Your task to perform on an android device: turn on sleep mode Image 0: 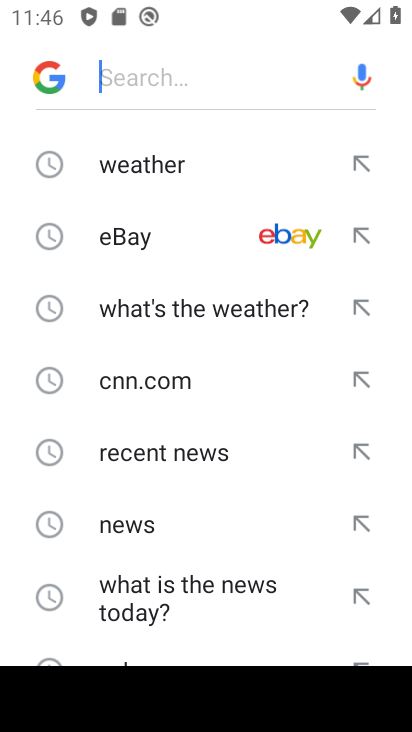
Step 0: press home button
Your task to perform on an android device: turn on sleep mode Image 1: 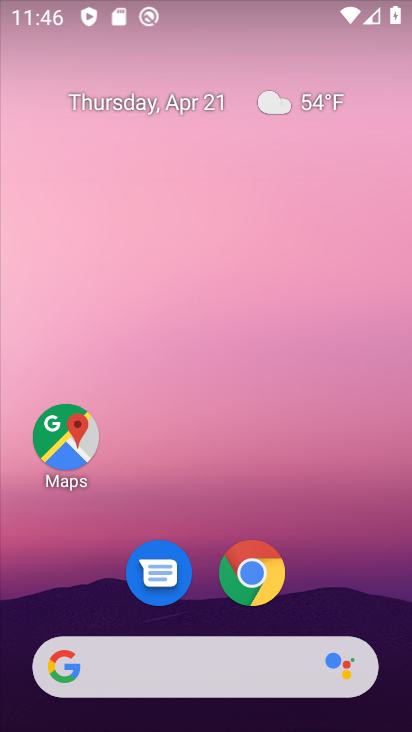
Step 1: drag from (360, 370) to (344, 191)
Your task to perform on an android device: turn on sleep mode Image 2: 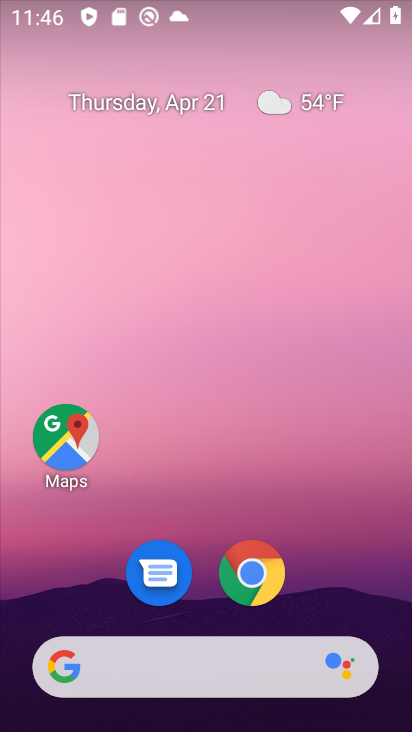
Step 2: drag from (351, 564) to (312, 158)
Your task to perform on an android device: turn on sleep mode Image 3: 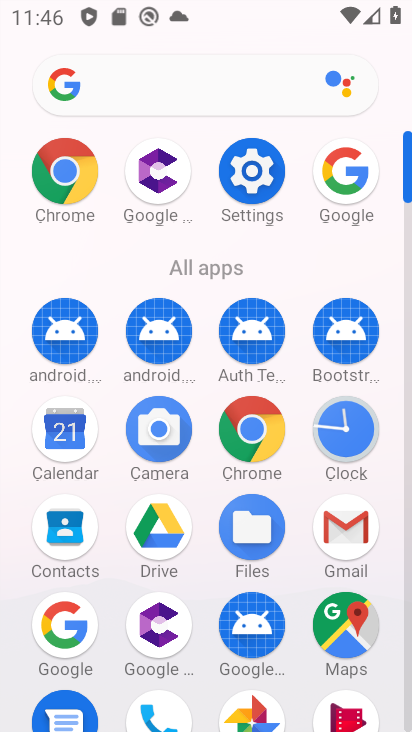
Step 3: click (273, 167)
Your task to perform on an android device: turn on sleep mode Image 4: 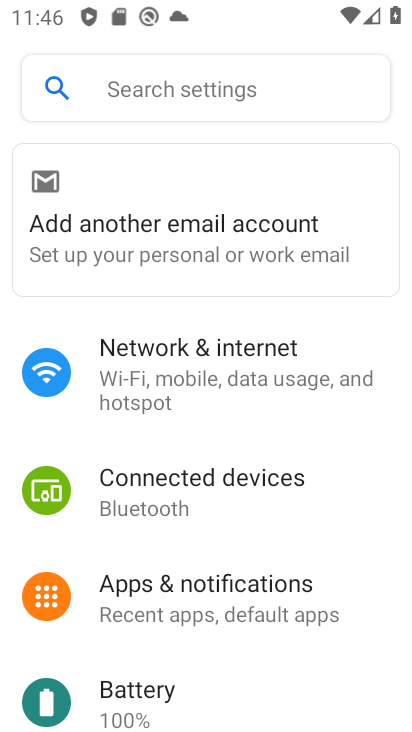
Step 4: click (233, 113)
Your task to perform on an android device: turn on sleep mode Image 5: 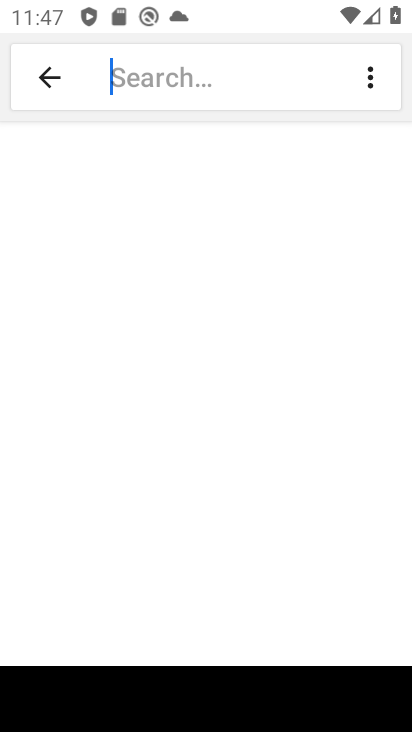
Step 5: type "sleep mode"
Your task to perform on an android device: turn on sleep mode Image 6: 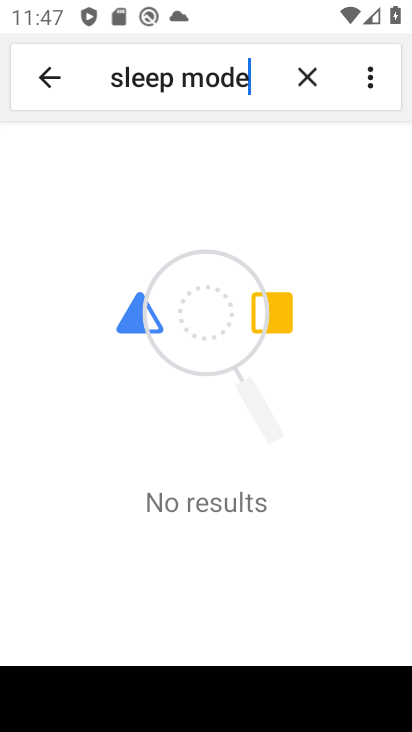
Step 6: task complete